Your task to perform on an android device: Search for "logitech g910" on ebay.com, select the first entry, add it to the cart, then select checkout. Image 0: 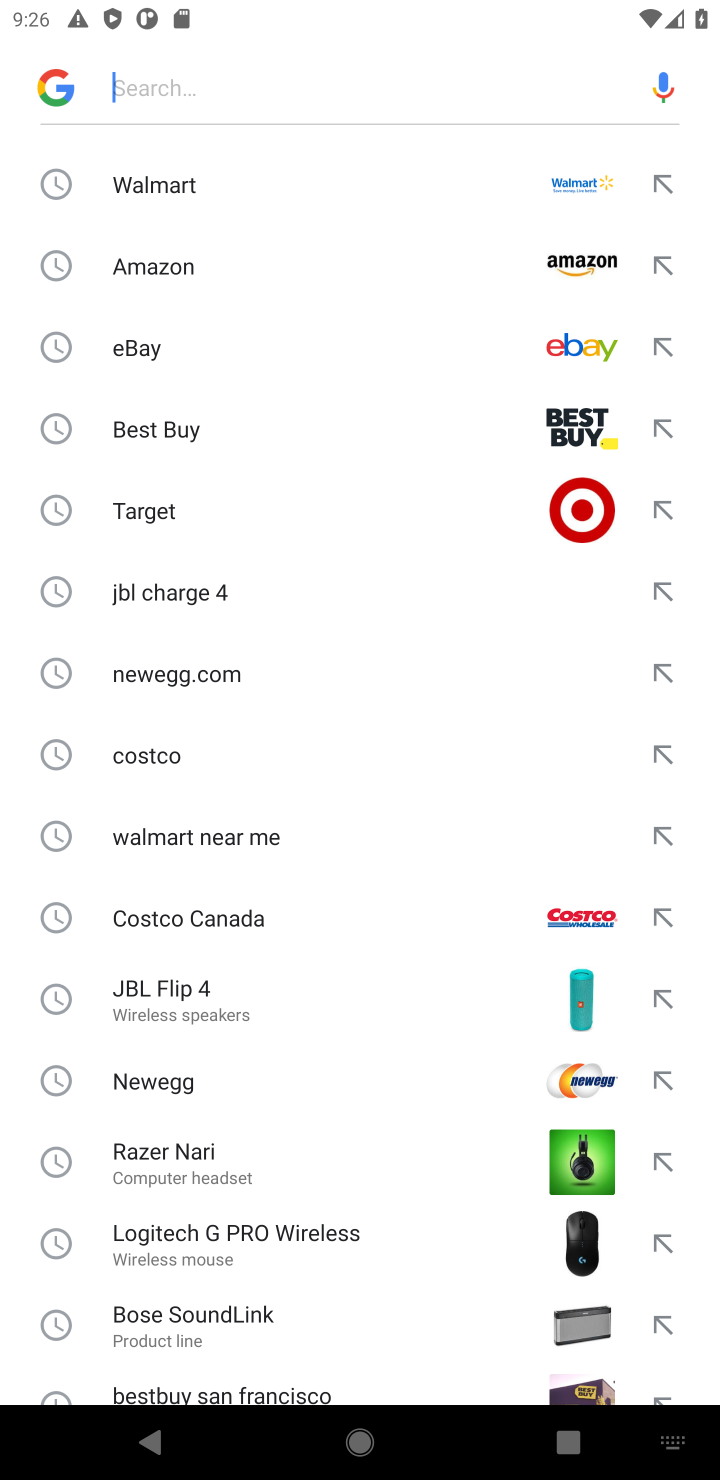
Step 0: click (225, 345)
Your task to perform on an android device: Search for "logitech g910" on ebay.com, select the first entry, add it to the cart, then select checkout. Image 1: 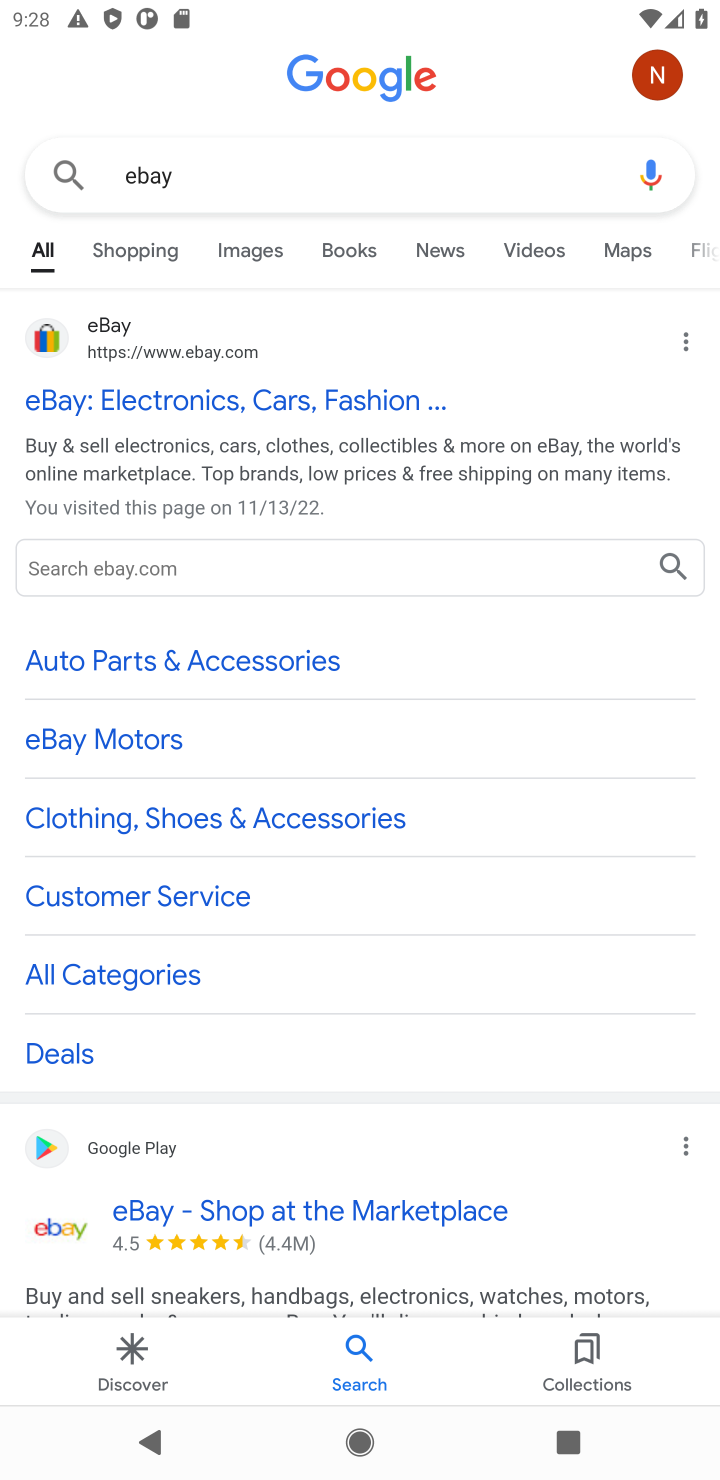
Step 1: click (272, 306)
Your task to perform on an android device: Search for "logitech g910" on ebay.com, select the first entry, add it to the cart, then select checkout. Image 2: 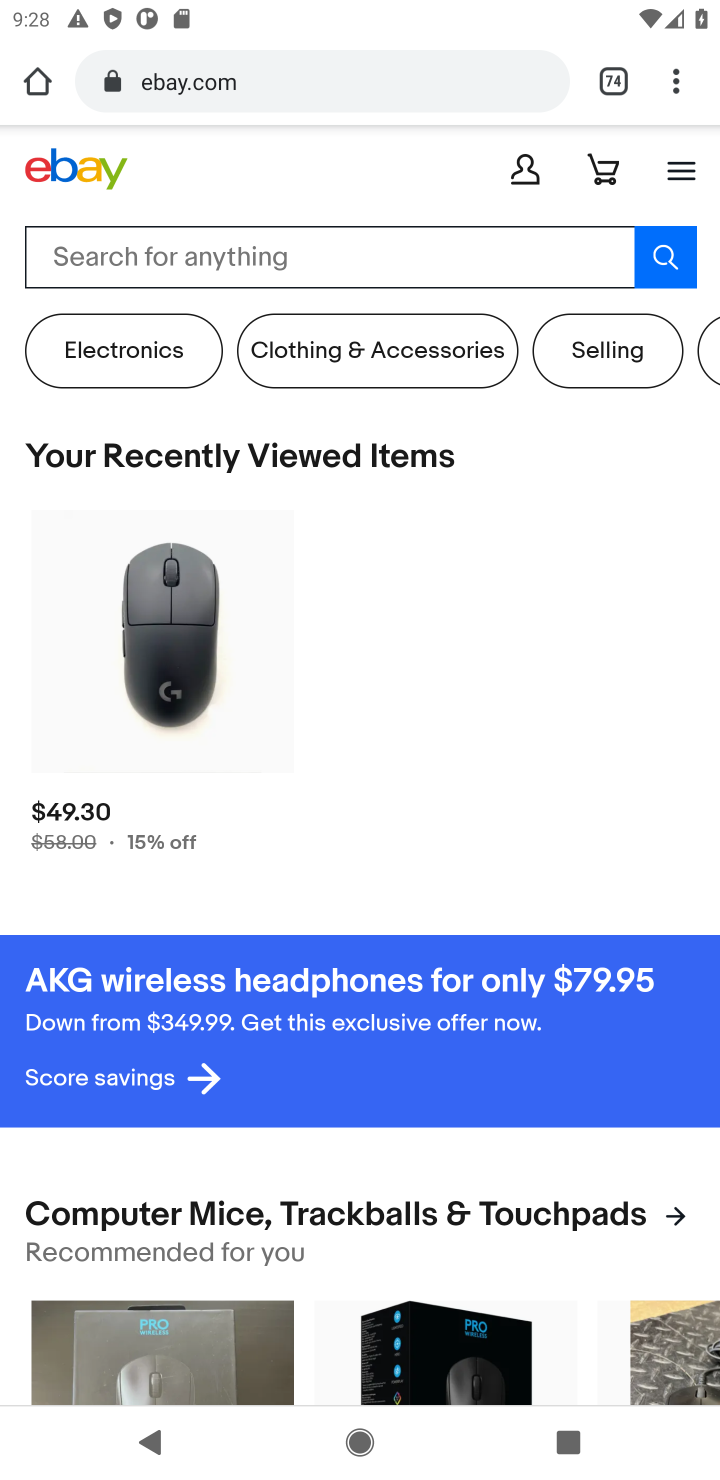
Step 2: task complete